Your task to perform on an android device: What's on the menu at Subway? Image 0: 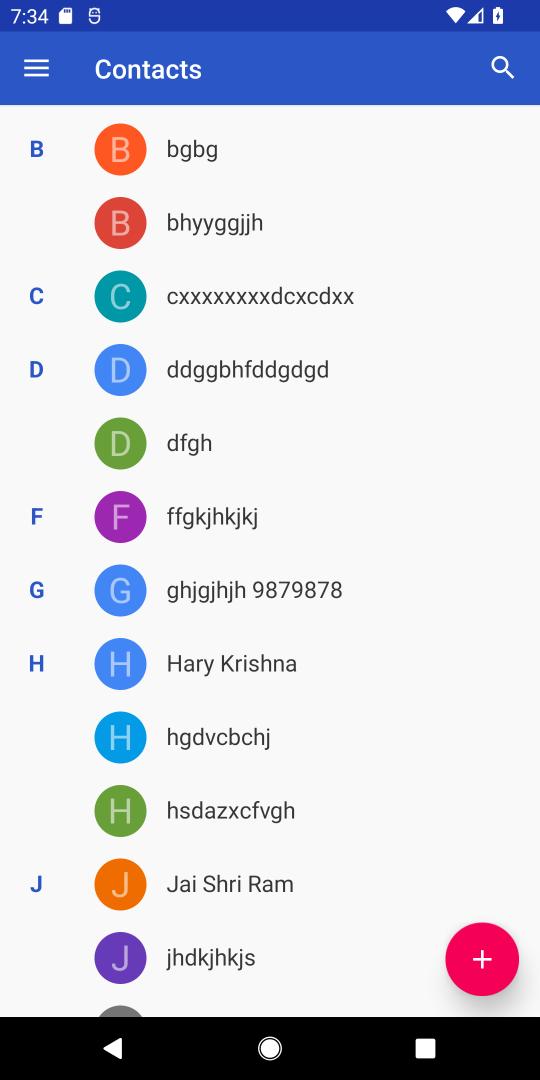
Step 0: press home button
Your task to perform on an android device: What's on the menu at Subway? Image 1: 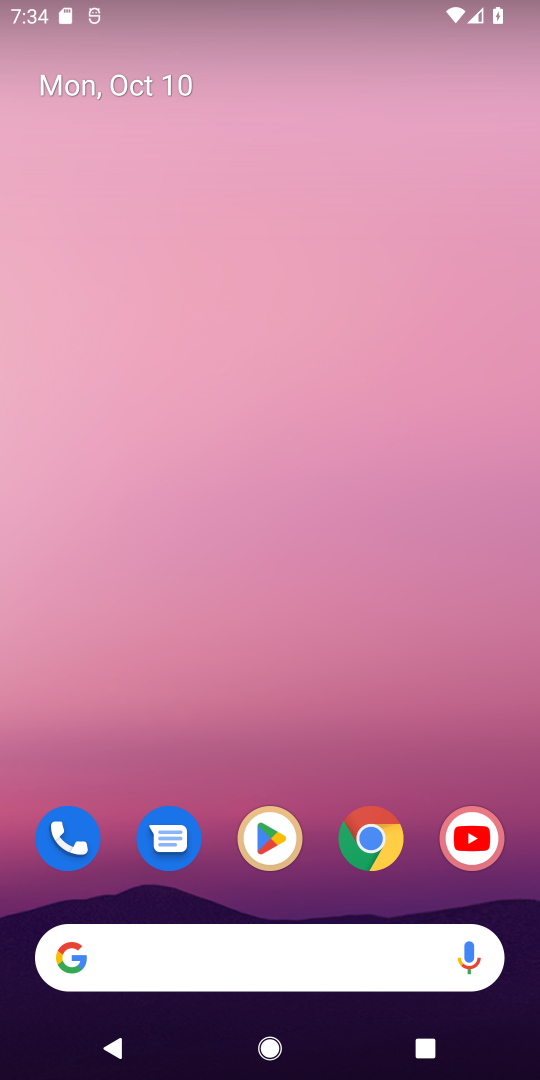
Step 1: click (370, 843)
Your task to perform on an android device: What's on the menu at Subway? Image 2: 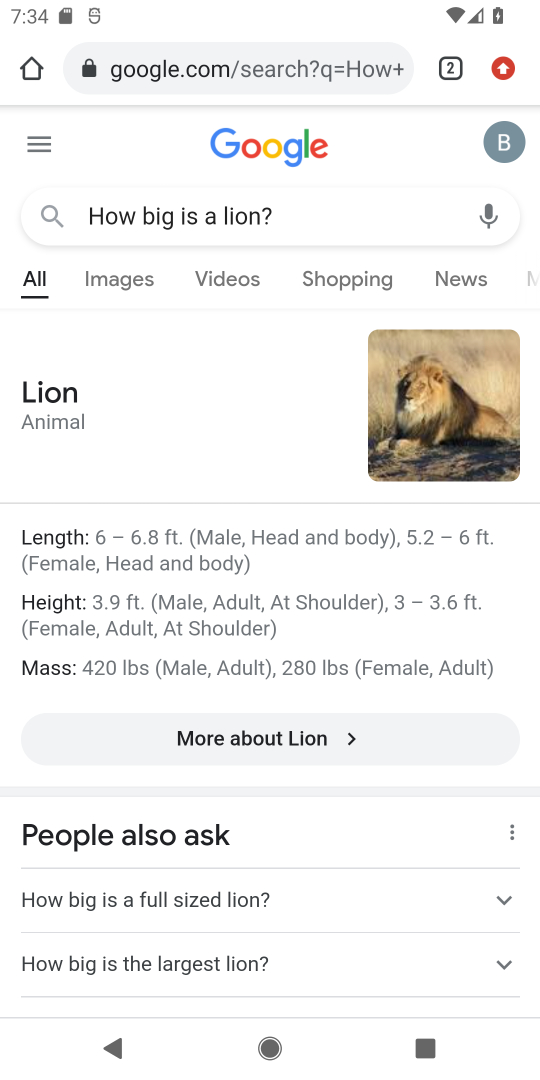
Step 2: click (291, 215)
Your task to perform on an android device: What's on the menu at Subway? Image 3: 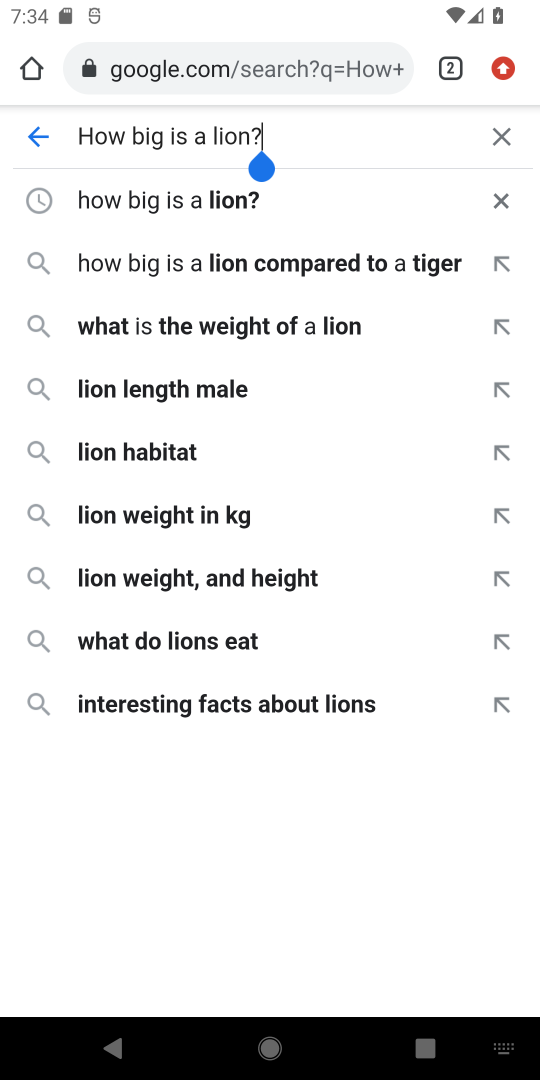
Step 3: click (493, 129)
Your task to perform on an android device: What's on the menu at Subway? Image 4: 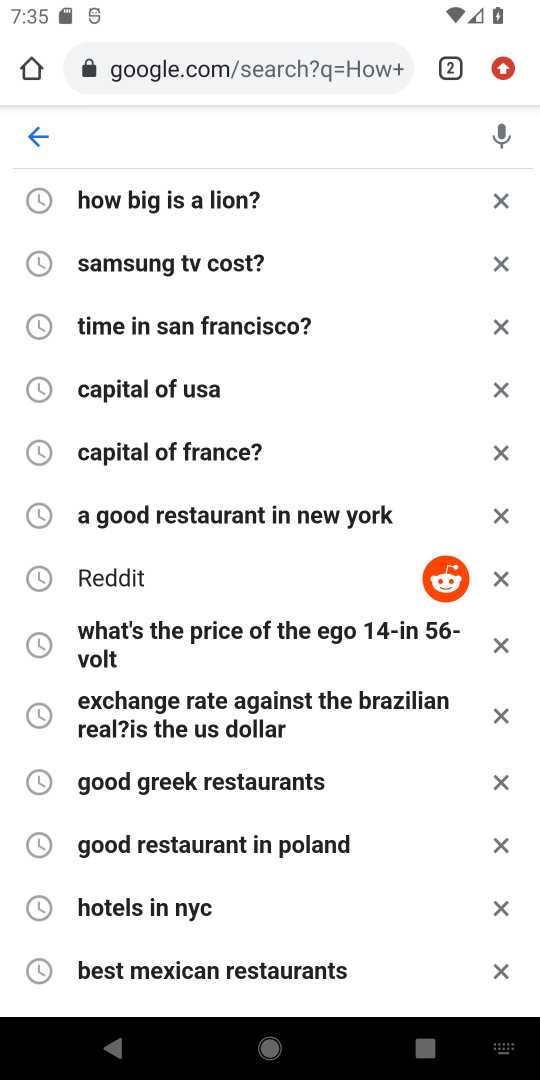
Step 4: type "subway menu"
Your task to perform on an android device: What's on the menu at Subway? Image 5: 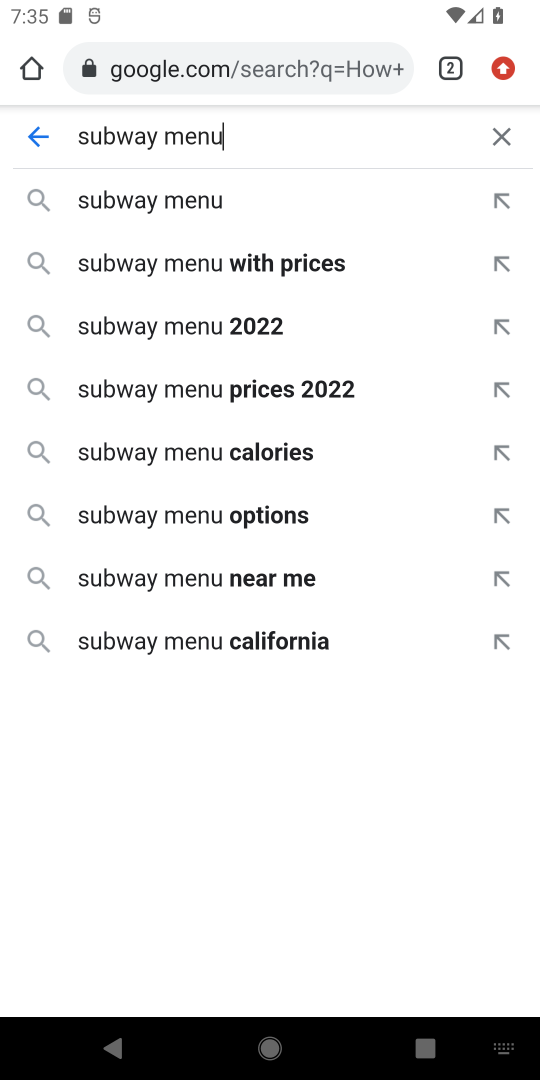
Step 5: click (184, 187)
Your task to perform on an android device: What's on the menu at Subway? Image 6: 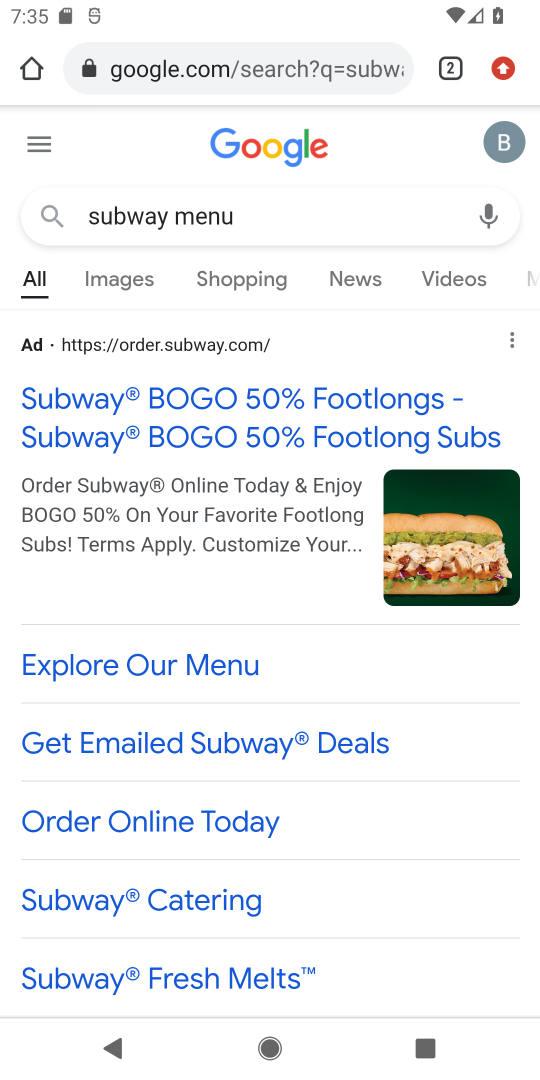
Step 6: click (78, 666)
Your task to perform on an android device: What's on the menu at Subway? Image 7: 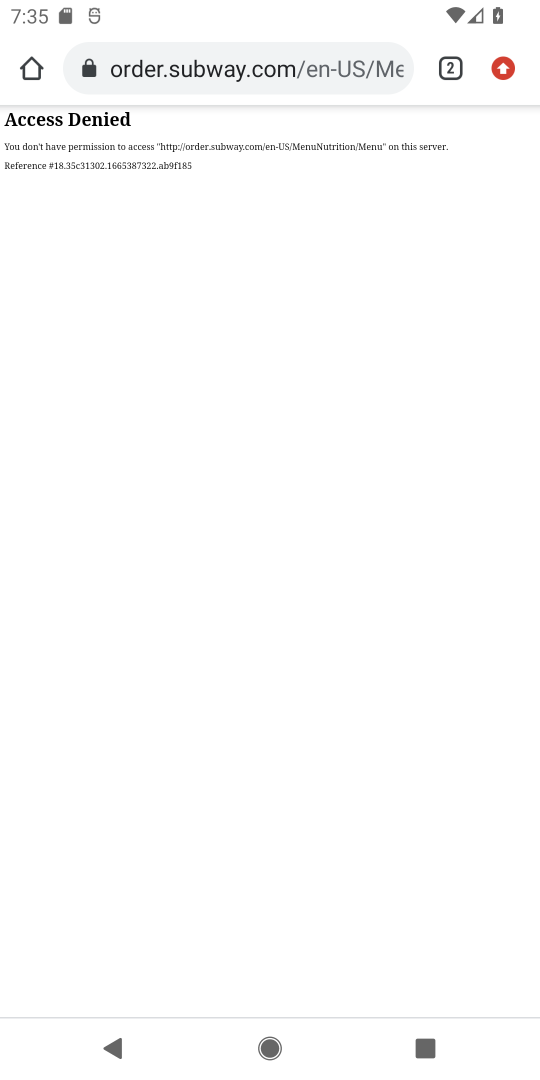
Step 7: task complete